Your task to perform on an android device: Open maps Image 0: 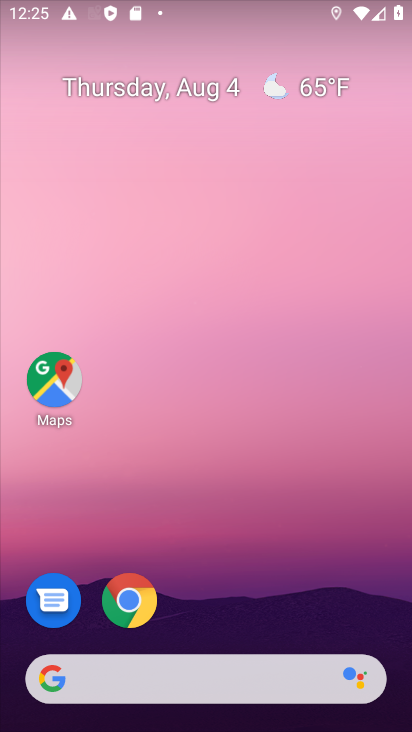
Step 0: drag from (219, 621) to (176, 62)
Your task to perform on an android device: Open maps Image 1: 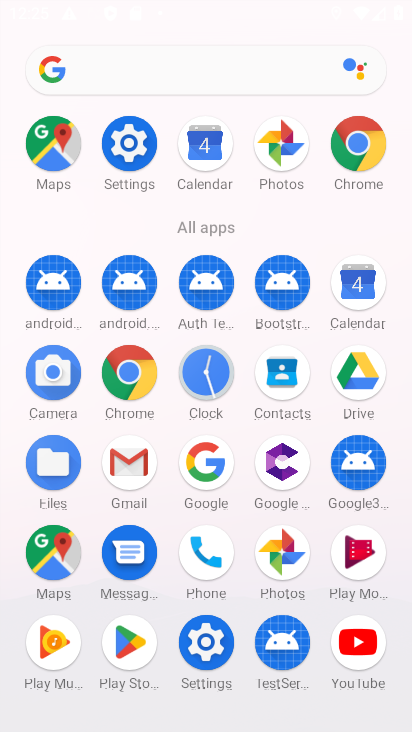
Step 1: click (74, 567)
Your task to perform on an android device: Open maps Image 2: 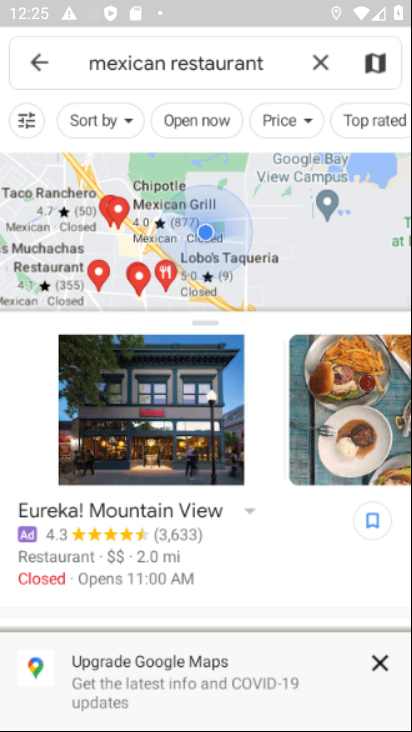
Step 2: click (26, 79)
Your task to perform on an android device: Open maps Image 3: 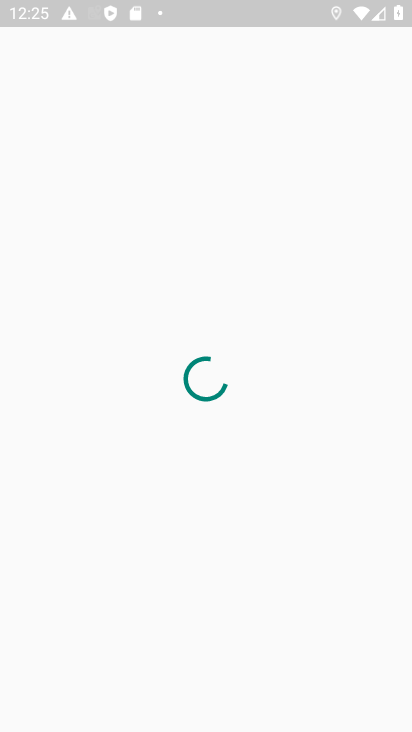
Step 3: task complete